Your task to perform on an android device: change the clock display to analog Image 0: 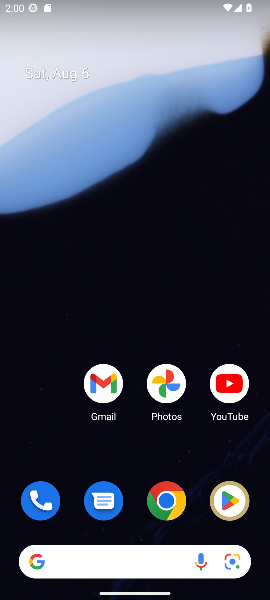
Step 0: press home button
Your task to perform on an android device: change the clock display to analog Image 1: 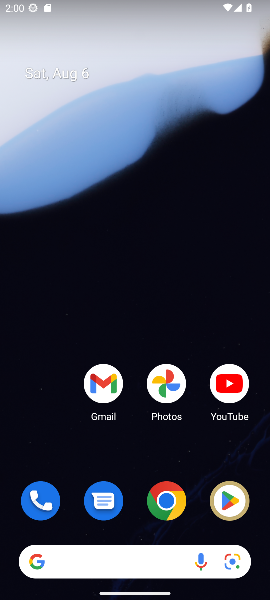
Step 1: drag from (134, 531) to (186, 67)
Your task to perform on an android device: change the clock display to analog Image 2: 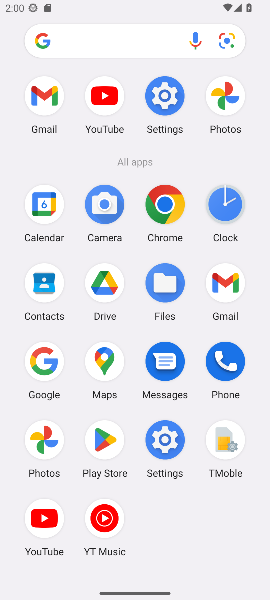
Step 2: click (218, 208)
Your task to perform on an android device: change the clock display to analog Image 3: 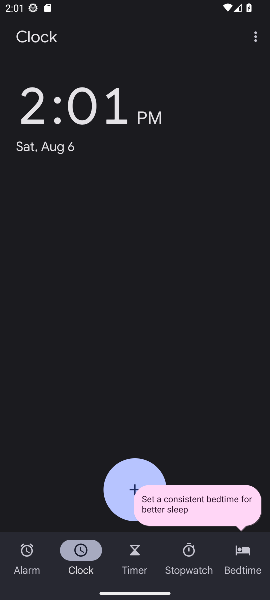
Step 3: click (259, 47)
Your task to perform on an android device: change the clock display to analog Image 4: 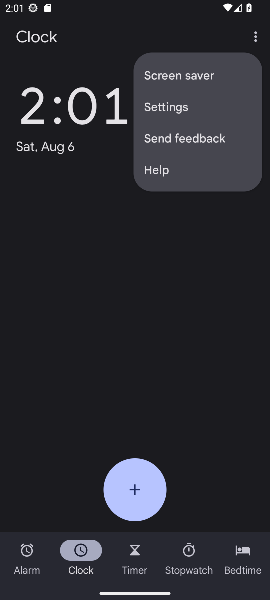
Step 4: click (178, 106)
Your task to perform on an android device: change the clock display to analog Image 5: 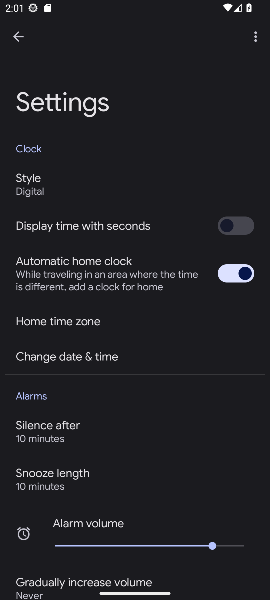
Step 5: click (26, 189)
Your task to perform on an android device: change the clock display to analog Image 6: 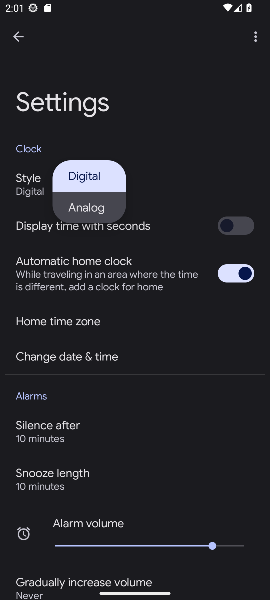
Step 6: click (75, 210)
Your task to perform on an android device: change the clock display to analog Image 7: 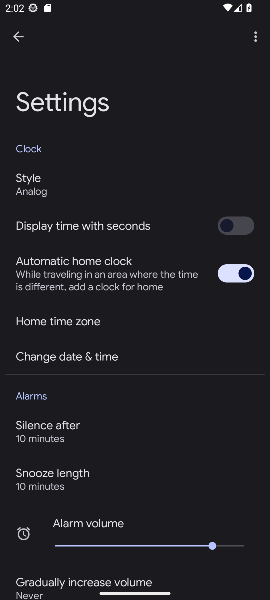
Step 7: task complete